Your task to perform on an android device: check storage Image 0: 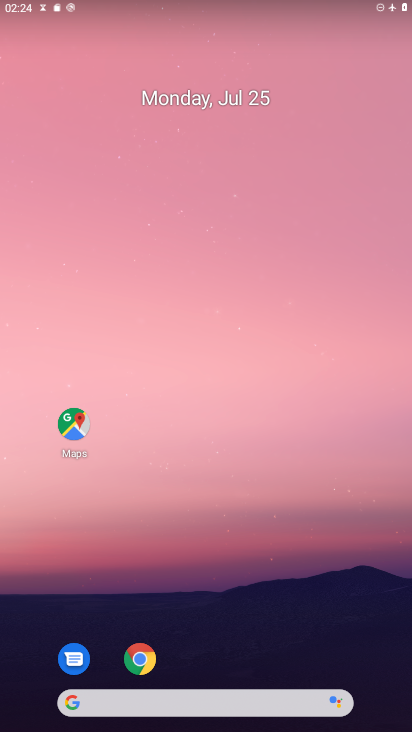
Step 0: drag from (254, 601) to (249, 38)
Your task to perform on an android device: check storage Image 1: 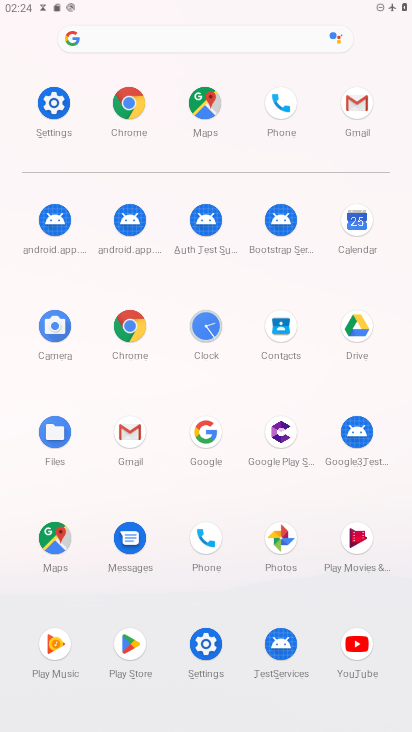
Step 1: click (47, 99)
Your task to perform on an android device: check storage Image 2: 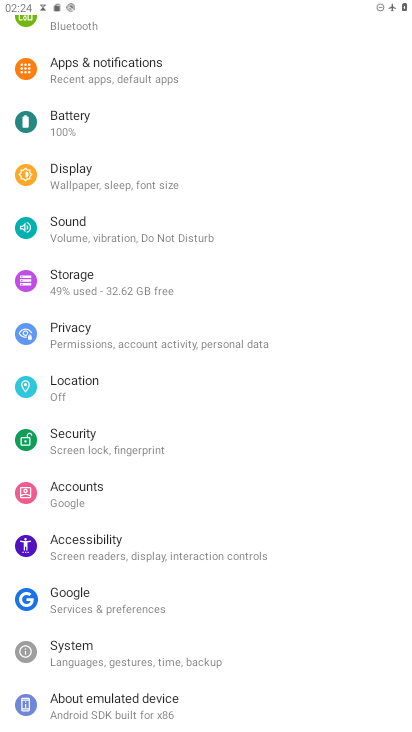
Step 2: click (94, 279)
Your task to perform on an android device: check storage Image 3: 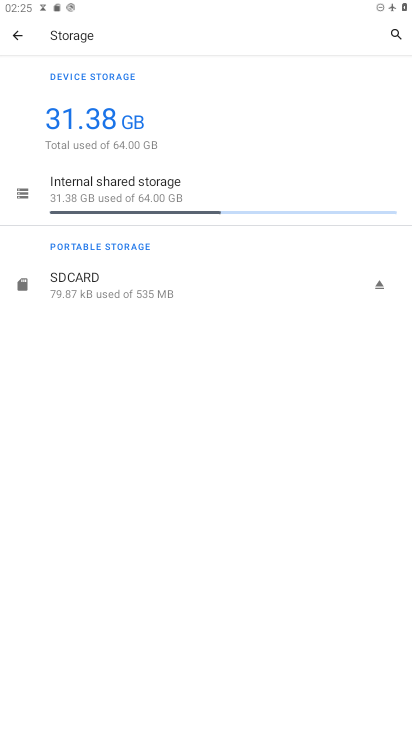
Step 3: task complete